Your task to perform on an android device: What's the weather going to be tomorrow? Image 0: 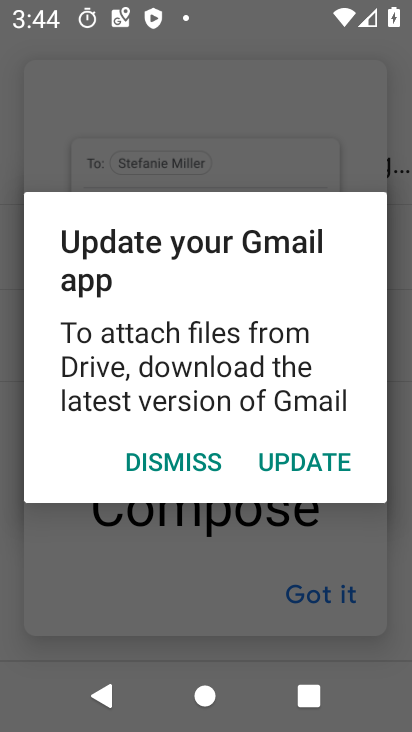
Step 0: press home button
Your task to perform on an android device: What's the weather going to be tomorrow? Image 1: 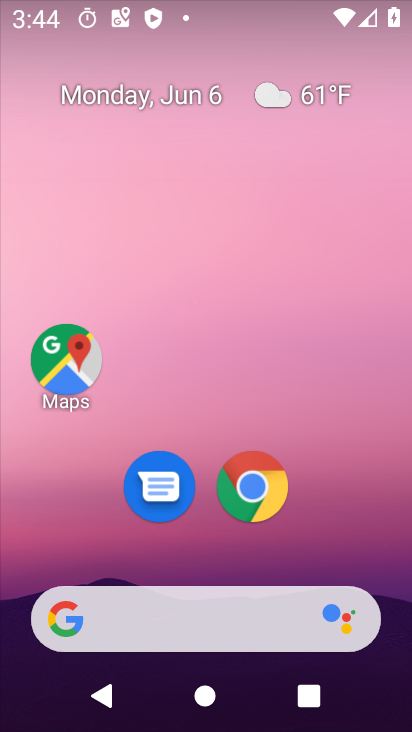
Step 1: click (325, 101)
Your task to perform on an android device: What's the weather going to be tomorrow? Image 2: 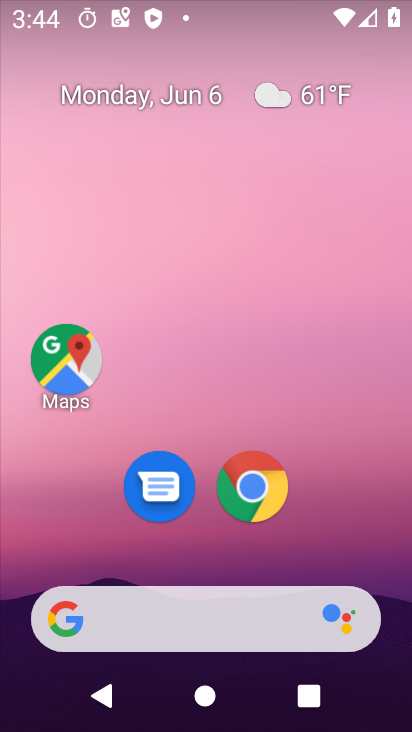
Step 2: click (325, 94)
Your task to perform on an android device: What's the weather going to be tomorrow? Image 3: 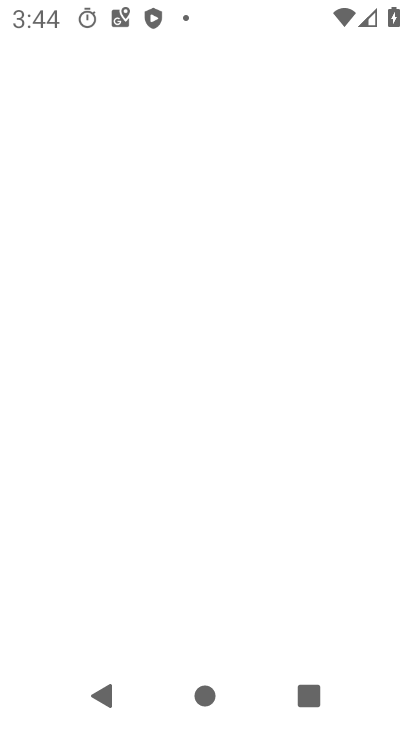
Step 3: click (325, 94)
Your task to perform on an android device: What's the weather going to be tomorrow? Image 4: 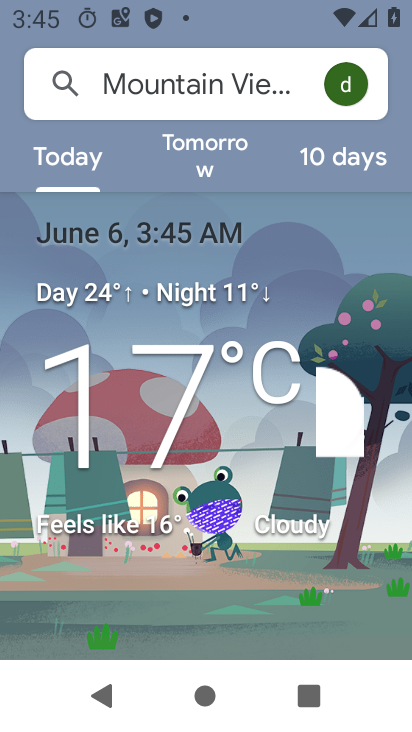
Step 4: click (210, 157)
Your task to perform on an android device: What's the weather going to be tomorrow? Image 5: 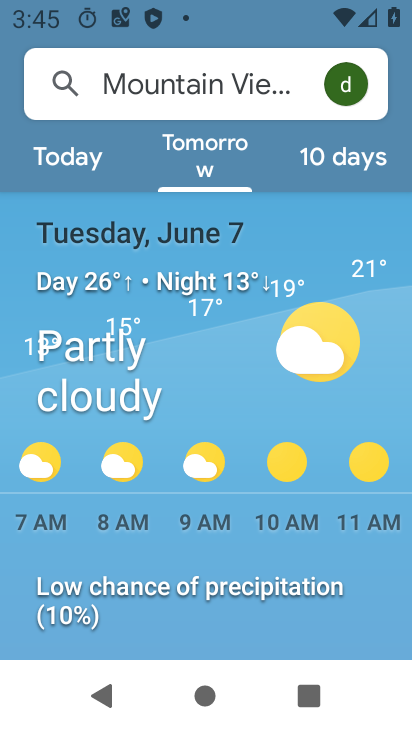
Step 5: task complete